Your task to perform on an android device: delete location history Image 0: 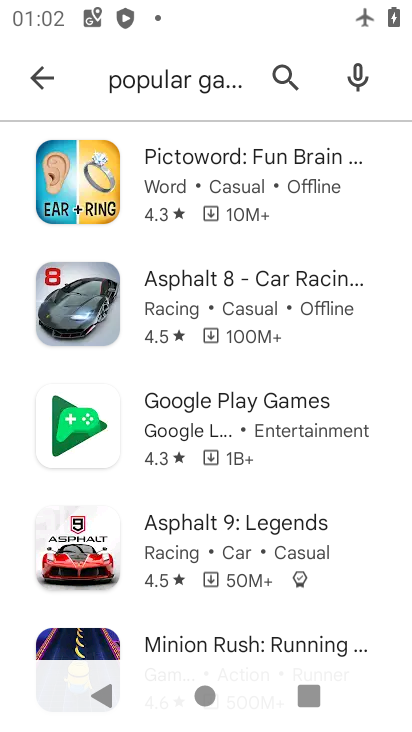
Step 0: press home button
Your task to perform on an android device: delete location history Image 1: 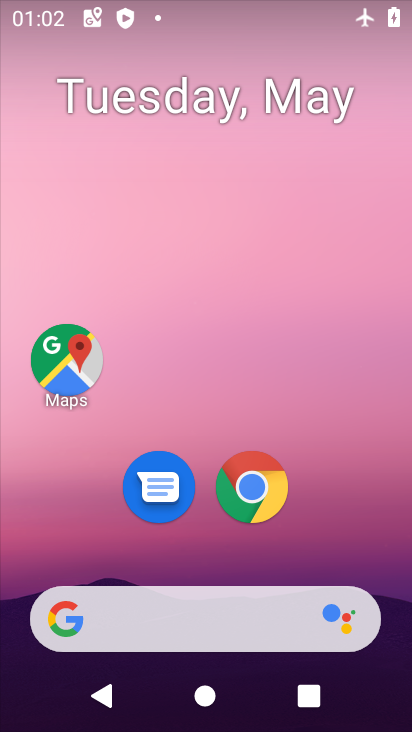
Step 1: click (69, 366)
Your task to perform on an android device: delete location history Image 2: 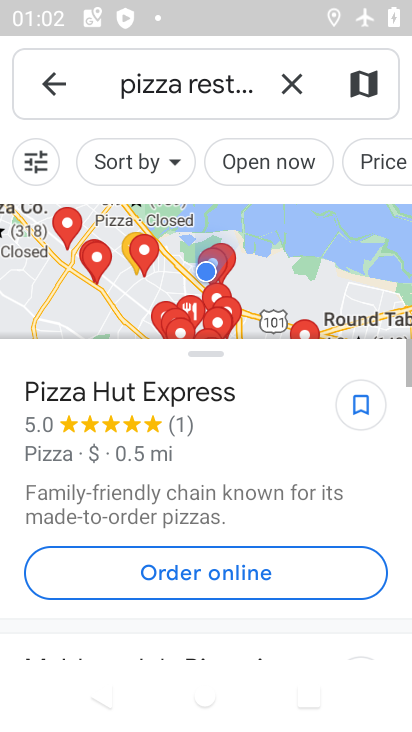
Step 2: click (49, 79)
Your task to perform on an android device: delete location history Image 3: 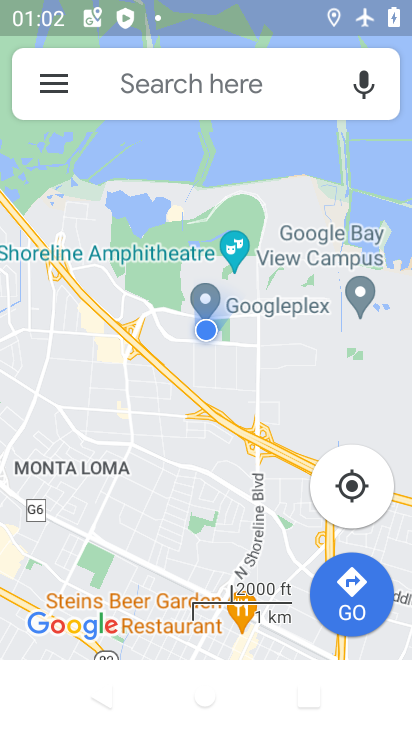
Step 3: click (49, 79)
Your task to perform on an android device: delete location history Image 4: 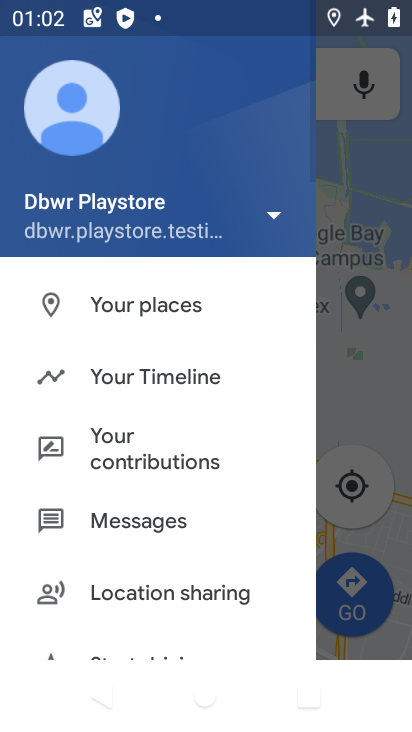
Step 4: click (140, 381)
Your task to perform on an android device: delete location history Image 5: 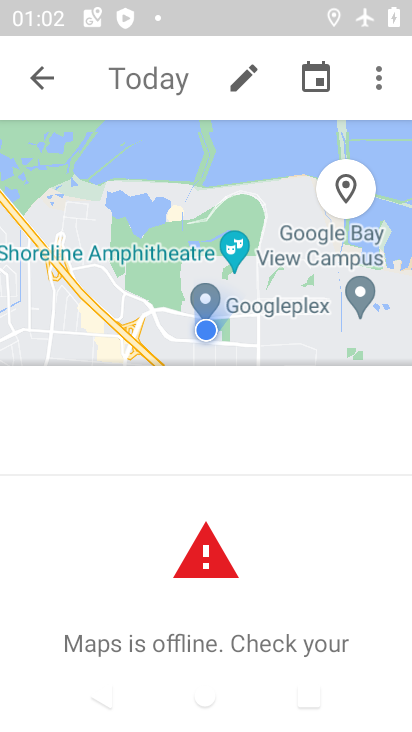
Step 5: click (381, 72)
Your task to perform on an android device: delete location history Image 6: 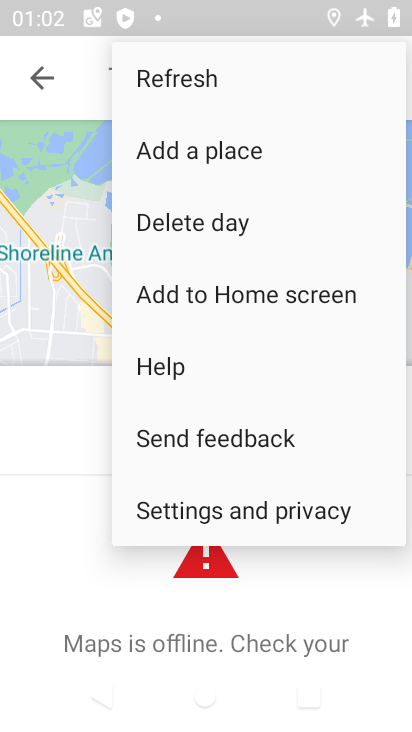
Step 6: click (198, 503)
Your task to perform on an android device: delete location history Image 7: 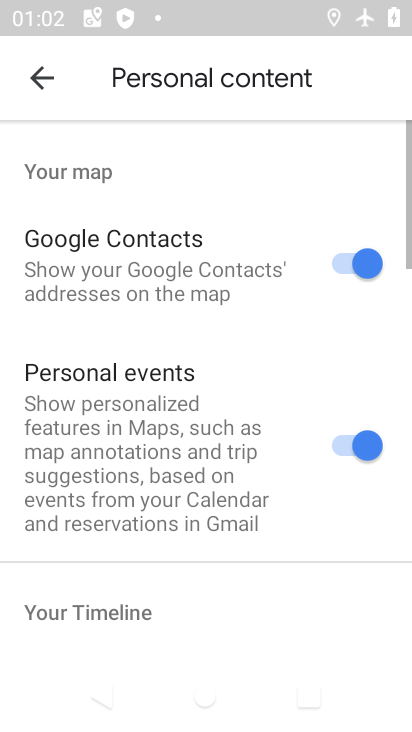
Step 7: drag from (162, 601) to (176, 223)
Your task to perform on an android device: delete location history Image 8: 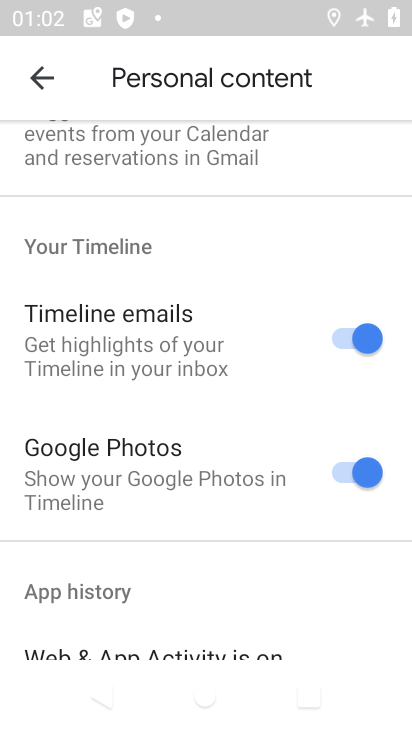
Step 8: drag from (185, 610) to (221, 335)
Your task to perform on an android device: delete location history Image 9: 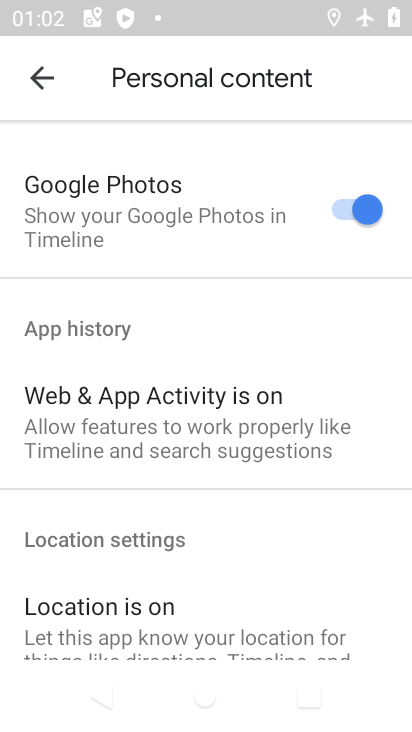
Step 9: drag from (242, 560) to (238, 283)
Your task to perform on an android device: delete location history Image 10: 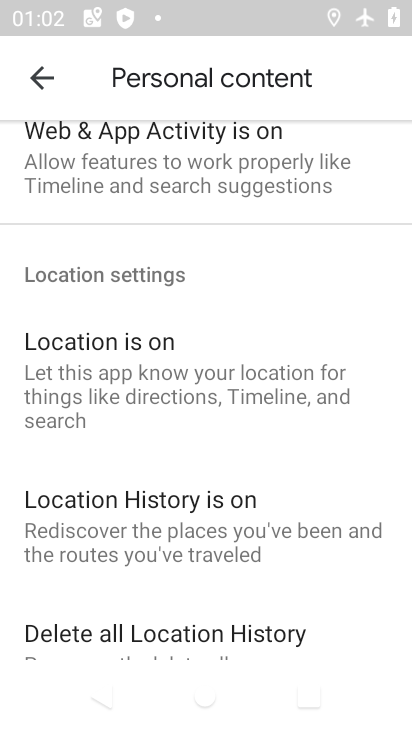
Step 10: click (190, 628)
Your task to perform on an android device: delete location history Image 11: 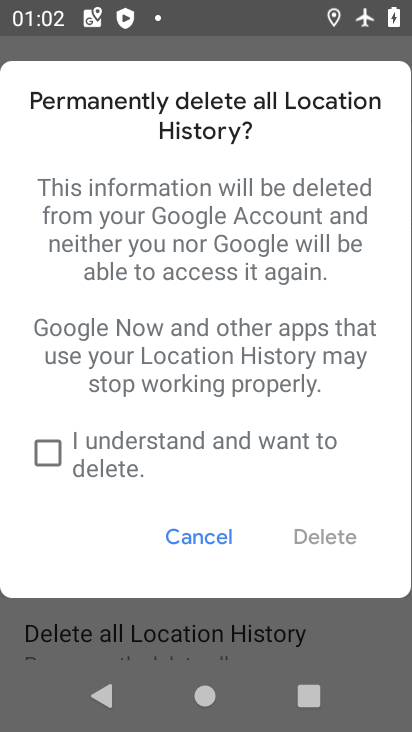
Step 11: click (52, 446)
Your task to perform on an android device: delete location history Image 12: 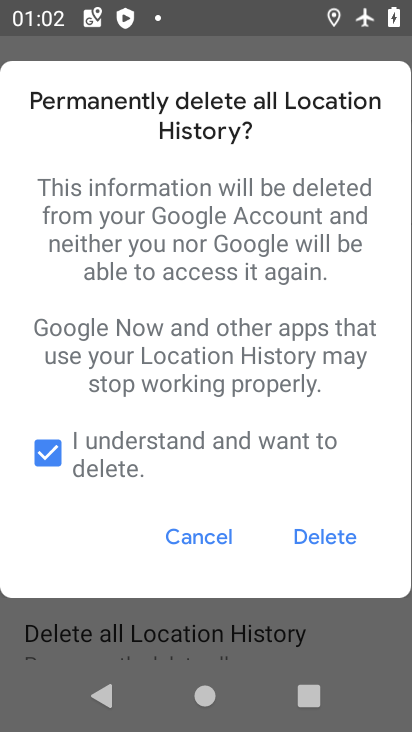
Step 12: click (322, 533)
Your task to perform on an android device: delete location history Image 13: 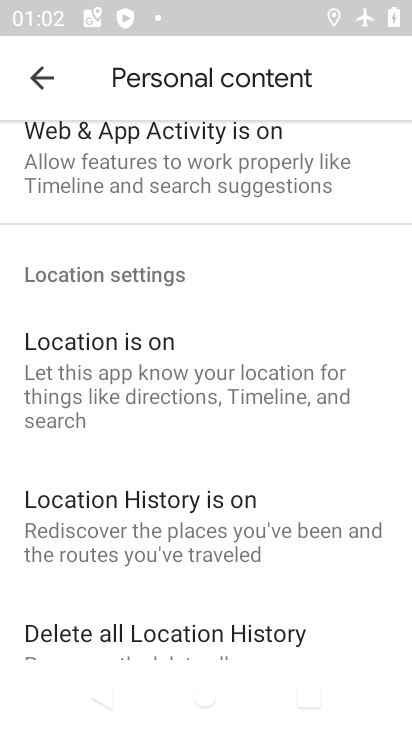
Step 13: task complete